Your task to perform on an android device: change the clock display to digital Image 0: 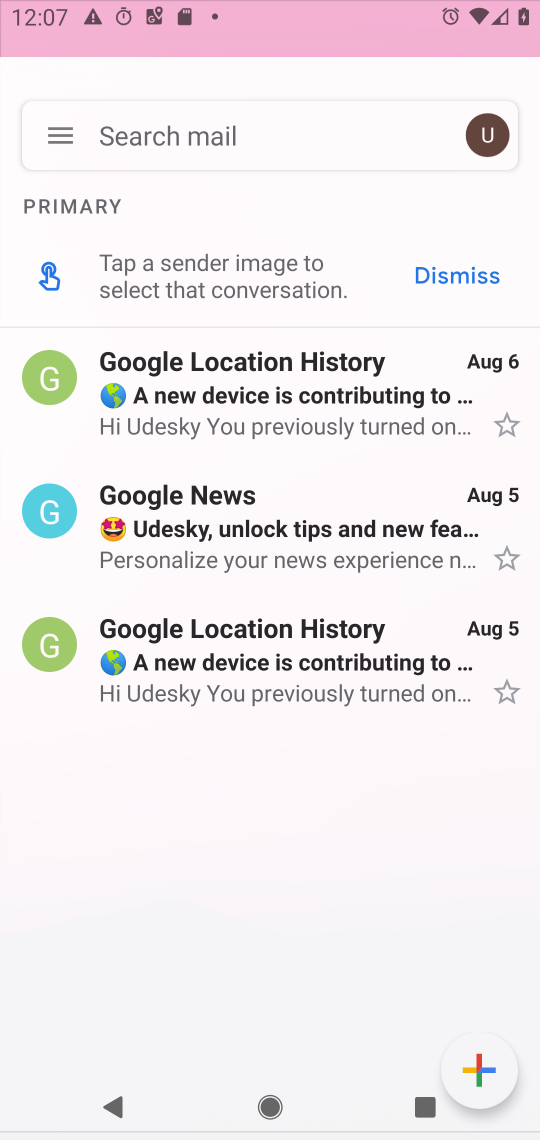
Step 0: press home button
Your task to perform on an android device: change the clock display to digital Image 1: 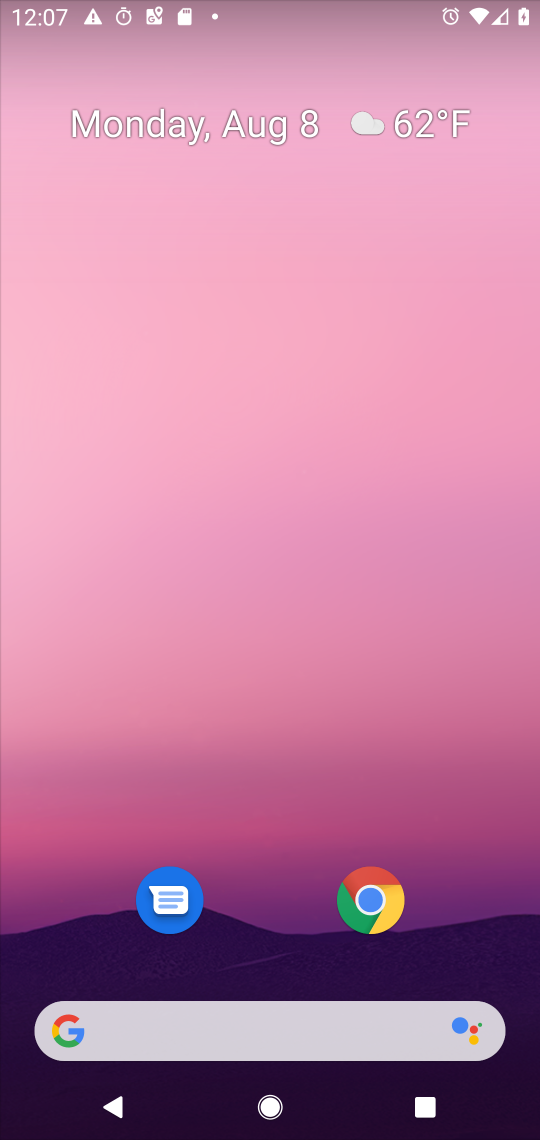
Step 1: press home button
Your task to perform on an android device: change the clock display to digital Image 2: 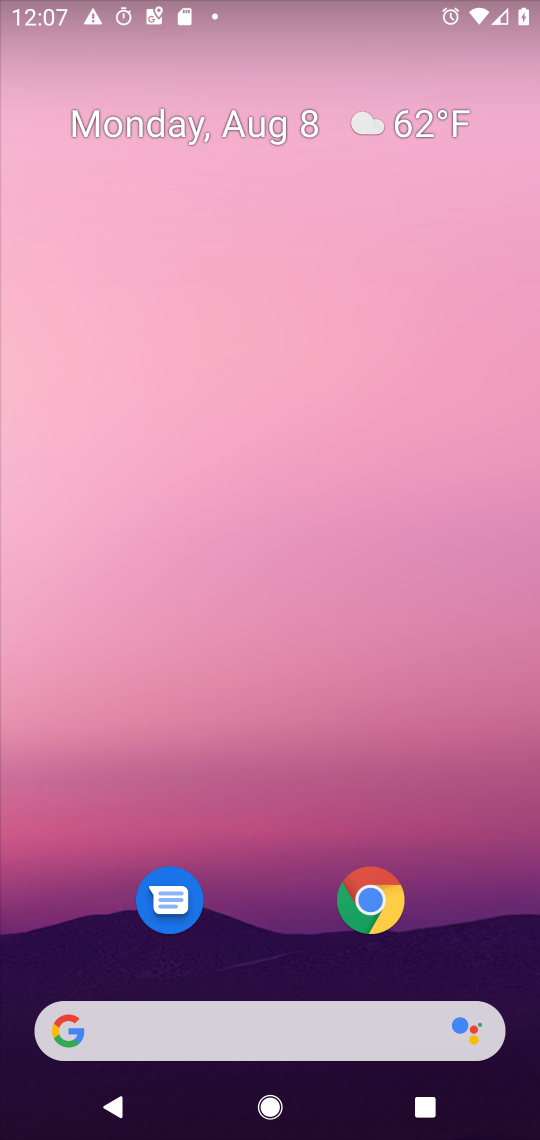
Step 2: drag from (297, 967) to (331, 123)
Your task to perform on an android device: change the clock display to digital Image 3: 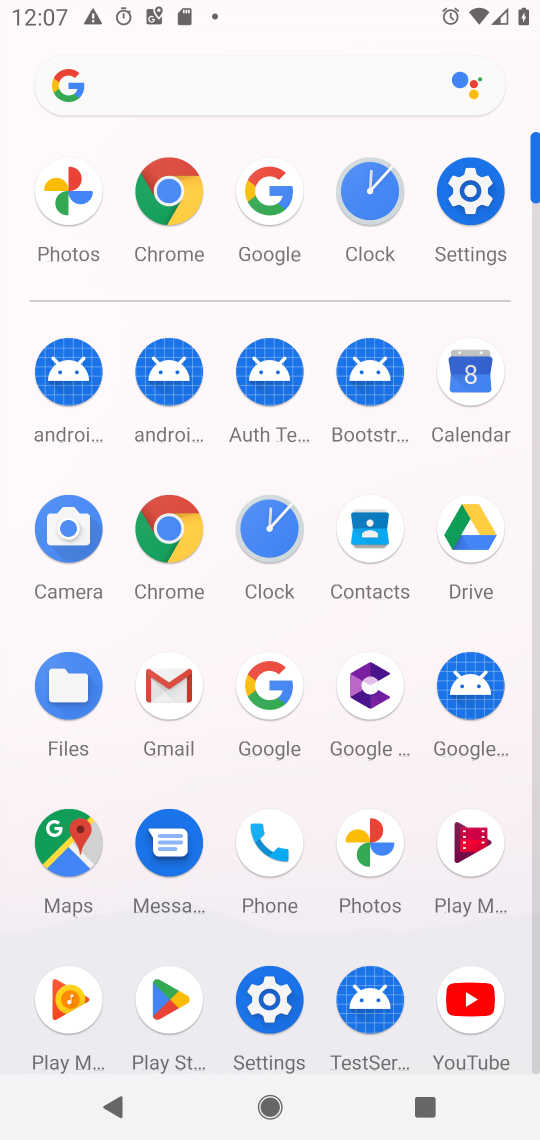
Step 3: click (364, 185)
Your task to perform on an android device: change the clock display to digital Image 4: 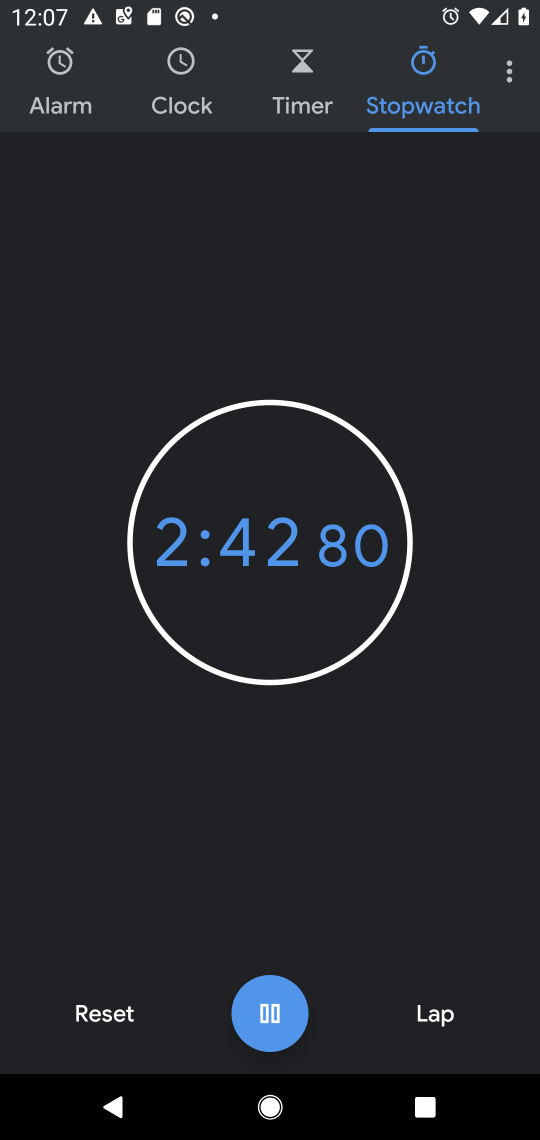
Step 4: click (506, 78)
Your task to perform on an android device: change the clock display to digital Image 5: 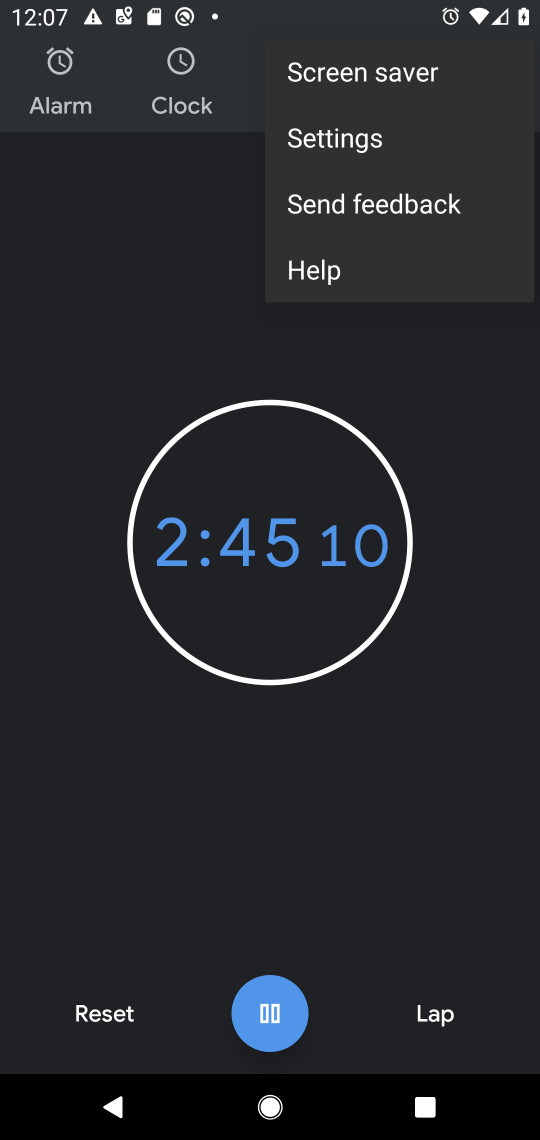
Step 5: click (364, 140)
Your task to perform on an android device: change the clock display to digital Image 6: 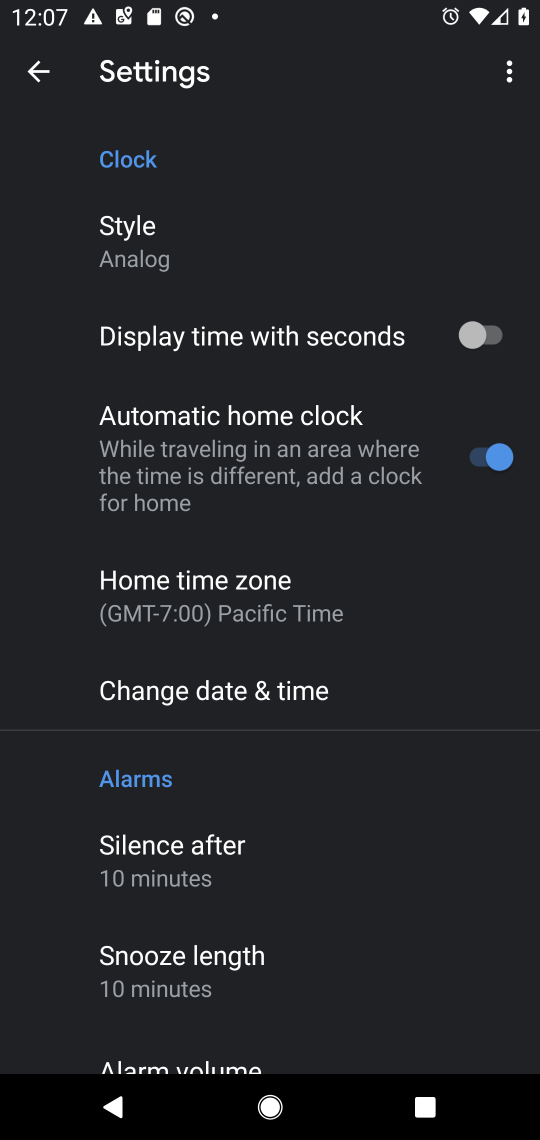
Step 6: click (195, 230)
Your task to perform on an android device: change the clock display to digital Image 7: 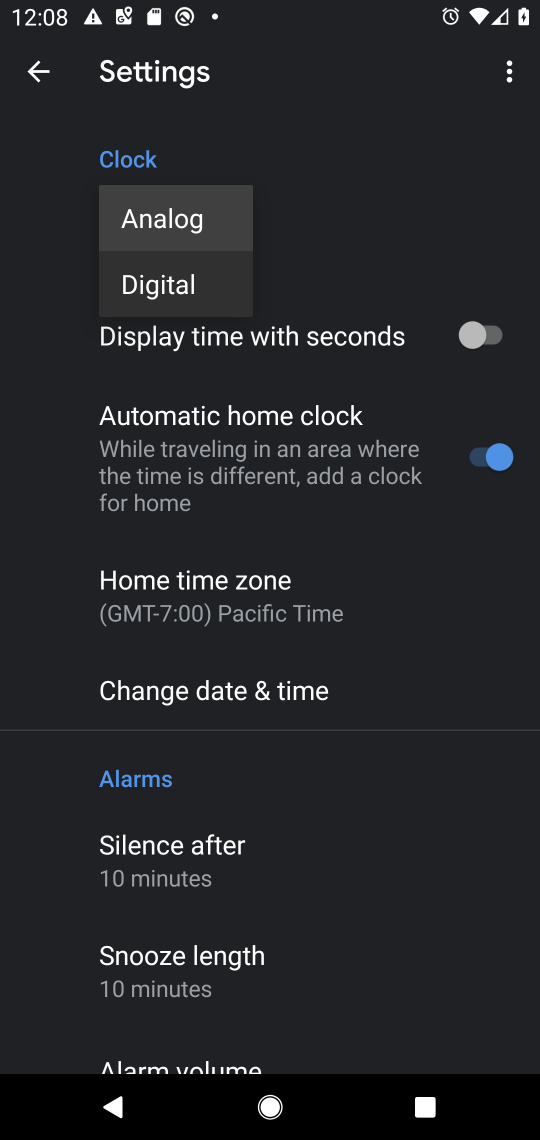
Step 7: click (205, 291)
Your task to perform on an android device: change the clock display to digital Image 8: 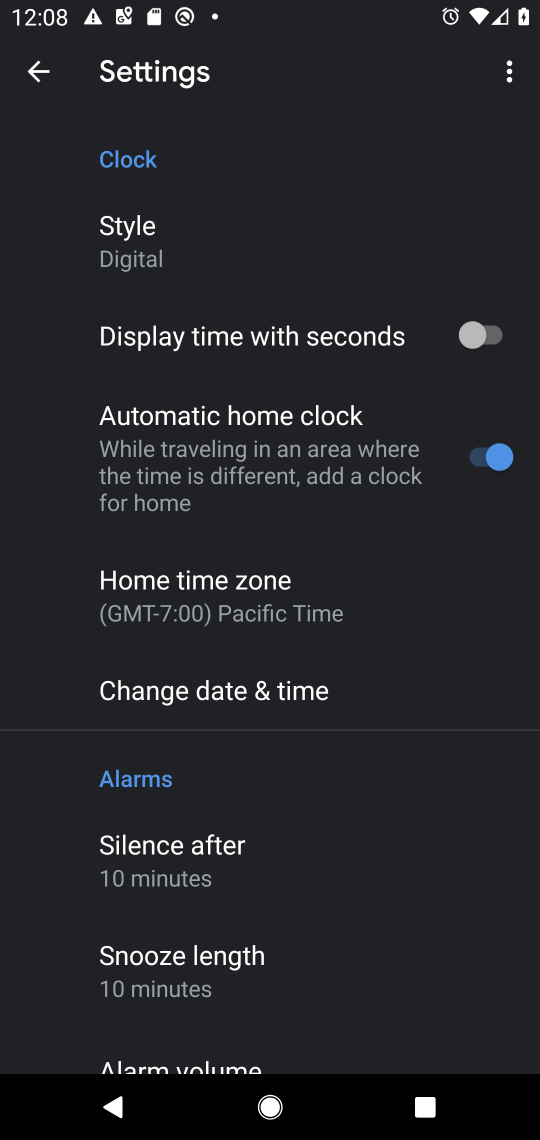
Step 8: task complete